Your task to perform on an android device: change the clock display to analog Image 0: 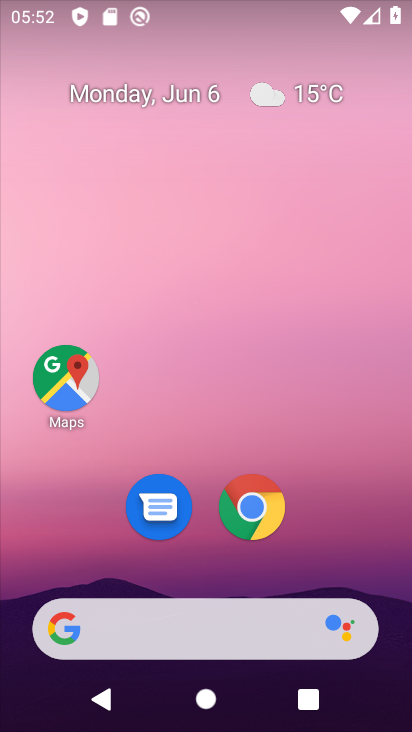
Step 0: click (154, 15)
Your task to perform on an android device: change the clock display to analog Image 1: 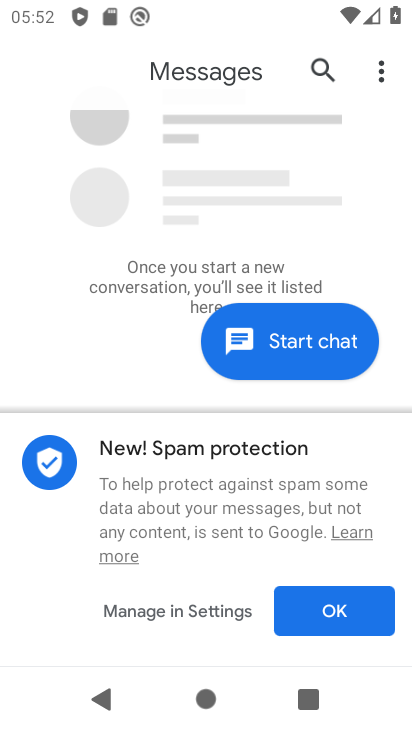
Step 1: press home button
Your task to perform on an android device: change the clock display to analog Image 2: 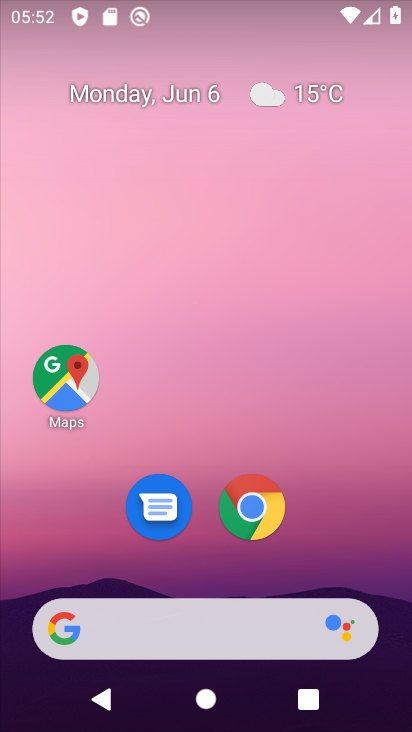
Step 2: drag from (208, 559) to (200, 8)
Your task to perform on an android device: change the clock display to analog Image 3: 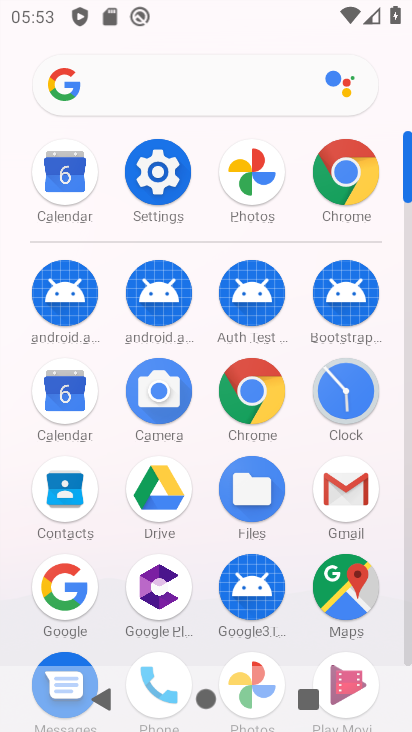
Step 3: click (160, 174)
Your task to perform on an android device: change the clock display to analog Image 4: 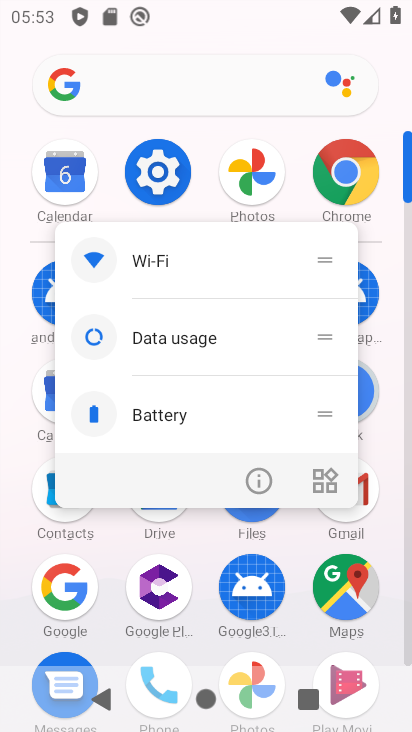
Step 4: click (157, 165)
Your task to perform on an android device: change the clock display to analog Image 5: 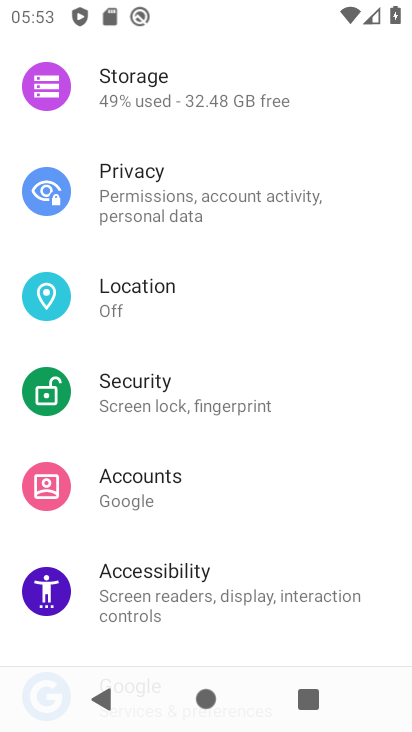
Step 5: drag from (193, 181) to (240, 521)
Your task to perform on an android device: change the clock display to analog Image 6: 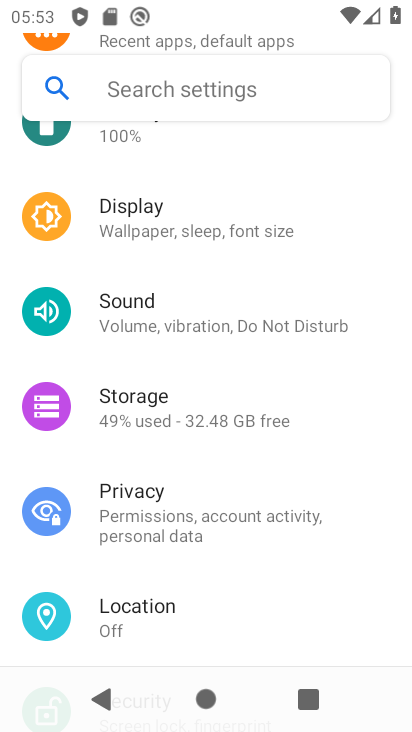
Step 6: drag from (230, 300) to (180, 648)
Your task to perform on an android device: change the clock display to analog Image 7: 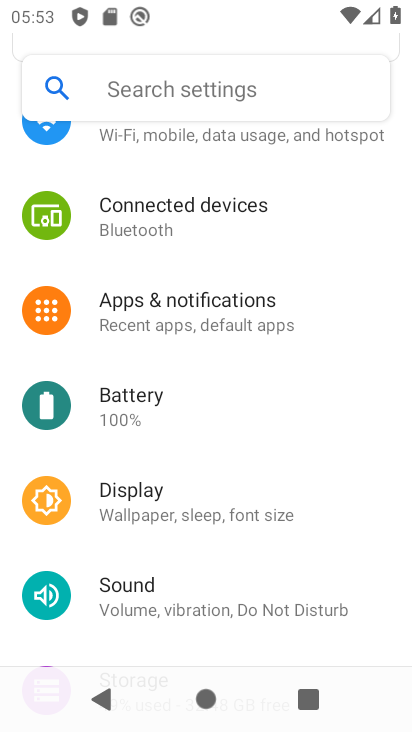
Step 7: drag from (197, 388) to (197, 708)
Your task to perform on an android device: change the clock display to analog Image 8: 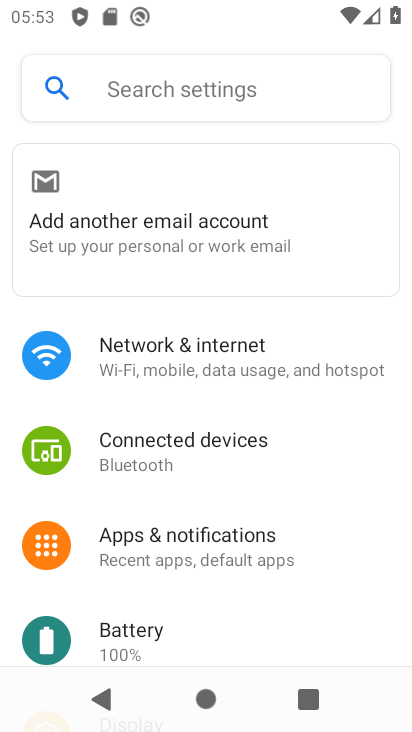
Step 8: press home button
Your task to perform on an android device: change the clock display to analog Image 9: 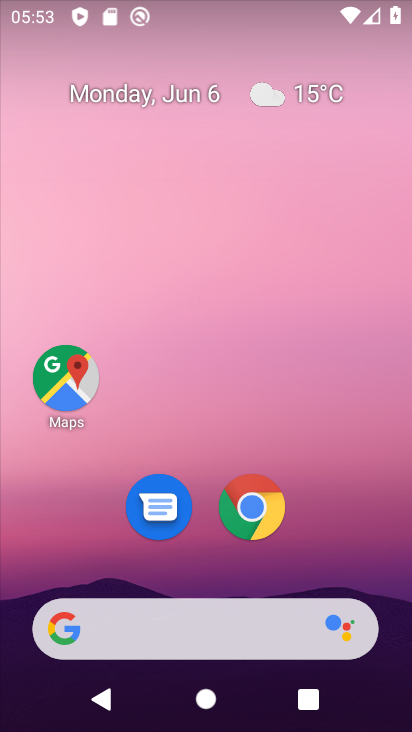
Step 9: drag from (219, 575) to (189, 129)
Your task to perform on an android device: change the clock display to analog Image 10: 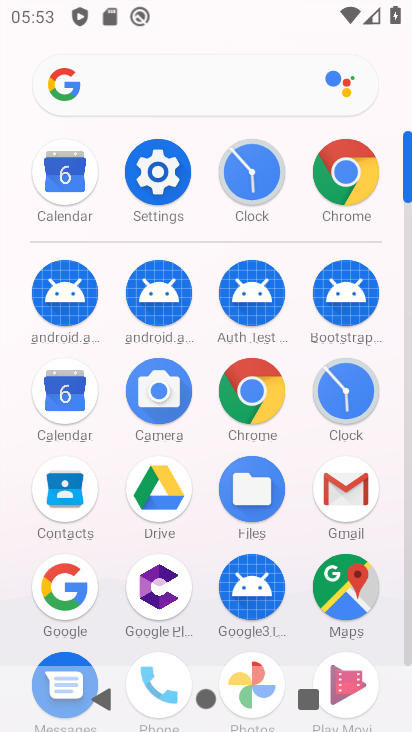
Step 10: click (259, 176)
Your task to perform on an android device: change the clock display to analog Image 11: 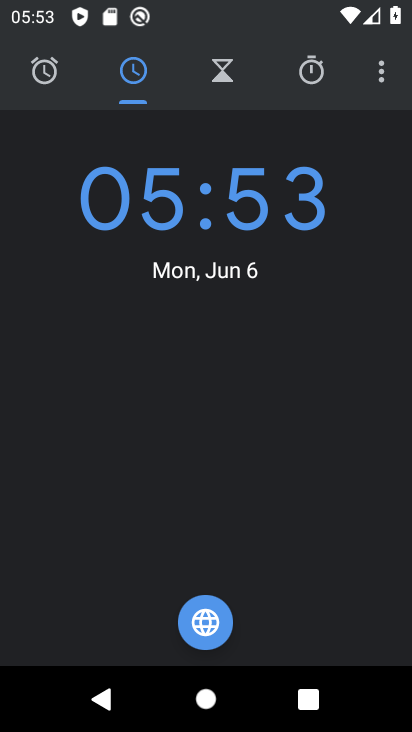
Step 11: click (384, 76)
Your task to perform on an android device: change the clock display to analog Image 12: 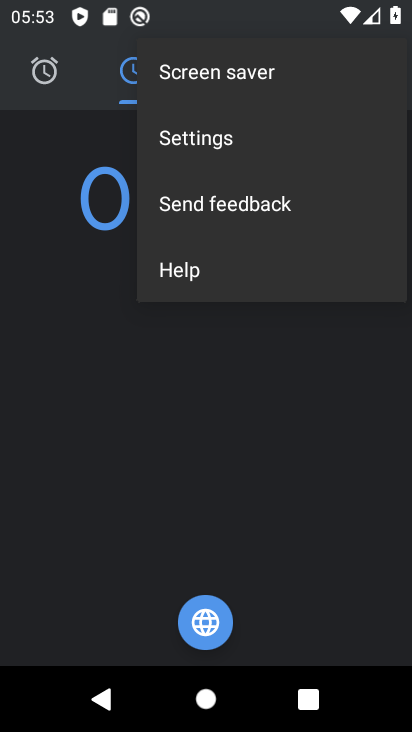
Step 12: click (196, 153)
Your task to perform on an android device: change the clock display to analog Image 13: 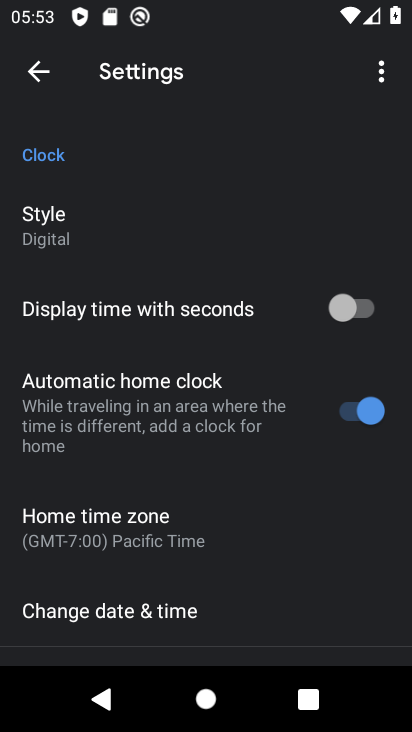
Step 13: click (74, 242)
Your task to perform on an android device: change the clock display to analog Image 14: 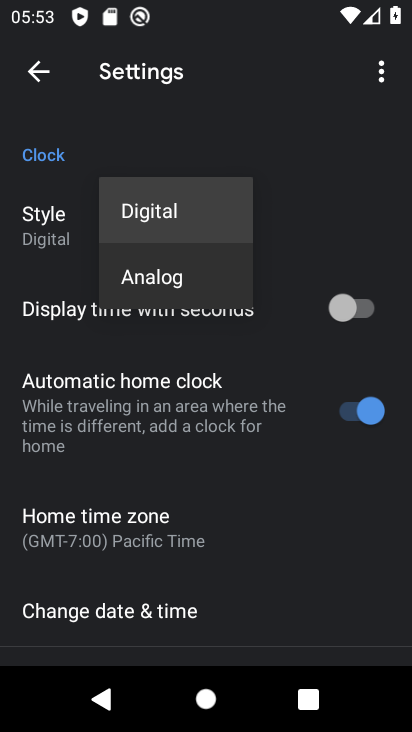
Step 14: click (159, 284)
Your task to perform on an android device: change the clock display to analog Image 15: 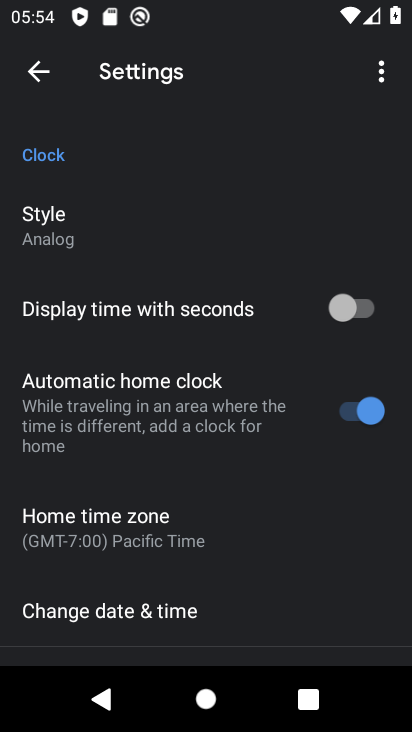
Step 15: task complete